Your task to perform on an android device: Search for Mexican restaurants on Maps Image 0: 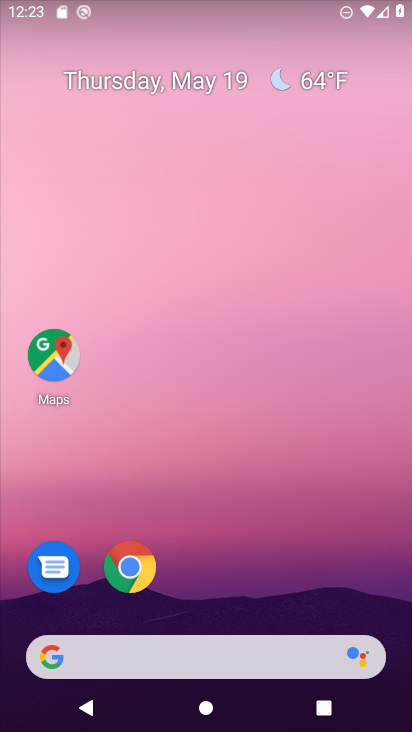
Step 0: click (43, 366)
Your task to perform on an android device: Search for Mexican restaurants on Maps Image 1: 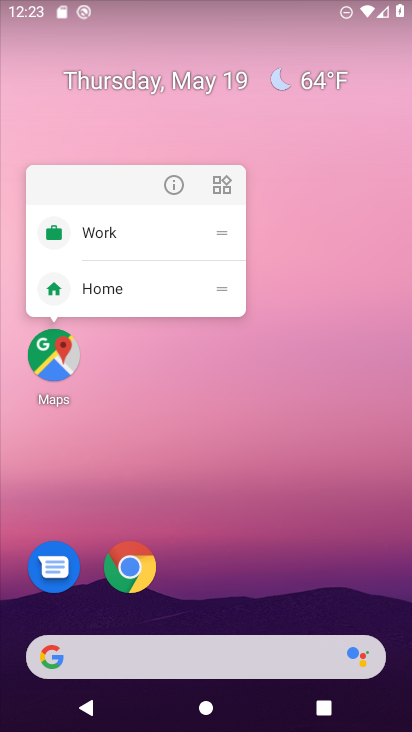
Step 1: click (50, 359)
Your task to perform on an android device: Search for Mexican restaurants on Maps Image 2: 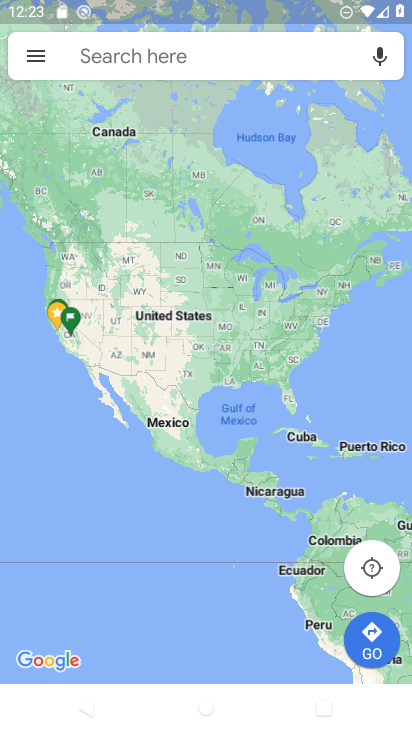
Step 2: click (182, 54)
Your task to perform on an android device: Search for Mexican restaurants on Maps Image 3: 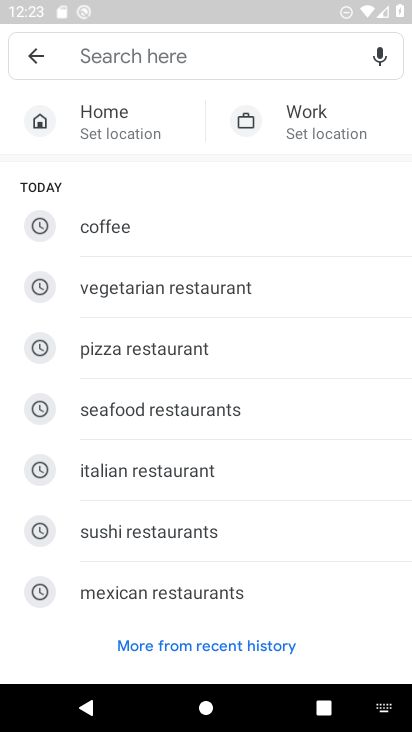
Step 3: click (146, 592)
Your task to perform on an android device: Search for Mexican restaurants on Maps Image 4: 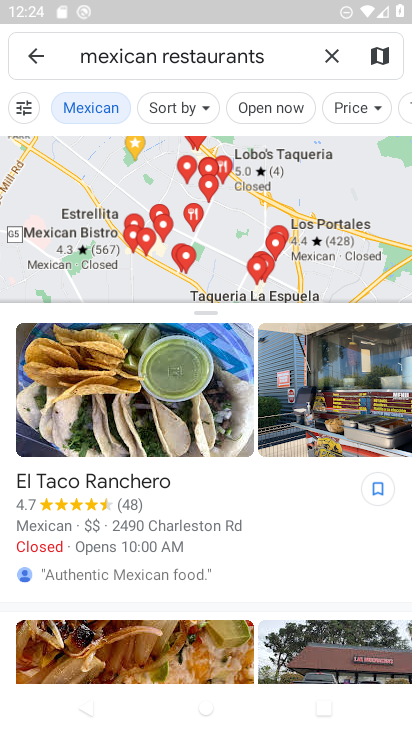
Step 4: task complete